Your task to perform on an android device: Turn off the flashlight Image 0: 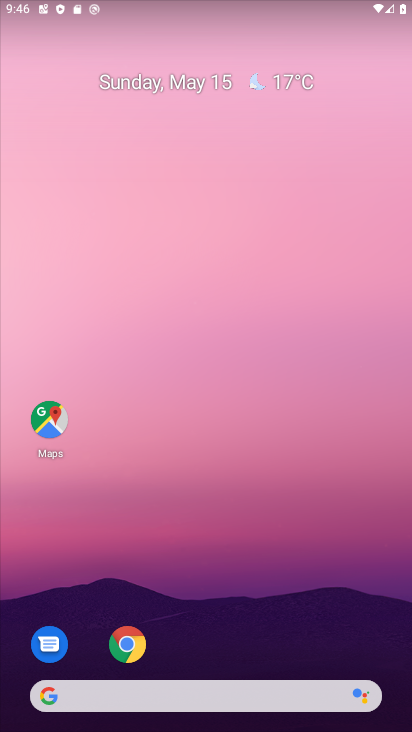
Step 0: drag from (247, 652) to (221, 274)
Your task to perform on an android device: Turn off the flashlight Image 1: 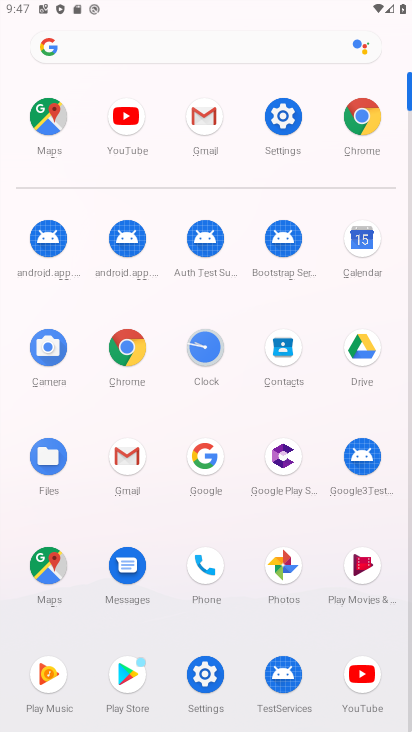
Step 1: click (295, 79)
Your task to perform on an android device: Turn off the flashlight Image 2: 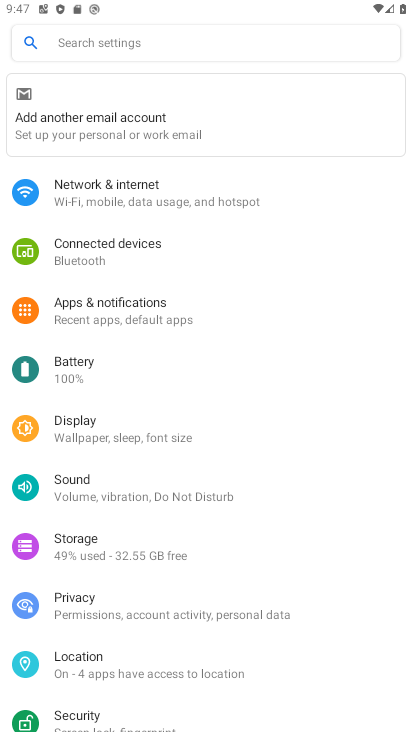
Step 2: click (114, 31)
Your task to perform on an android device: Turn off the flashlight Image 3: 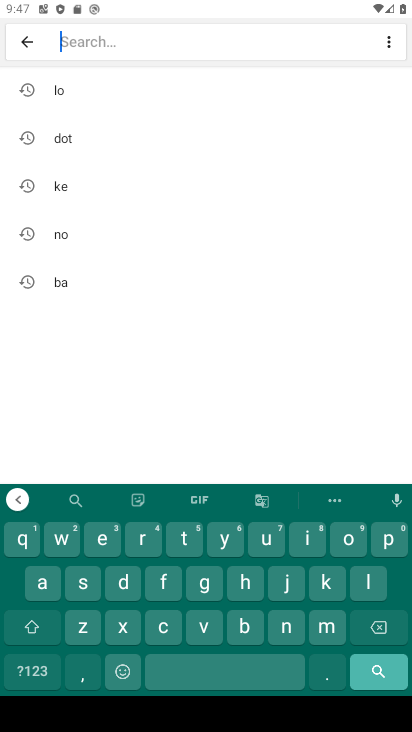
Step 3: click (165, 594)
Your task to perform on an android device: Turn off the flashlight Image 4: 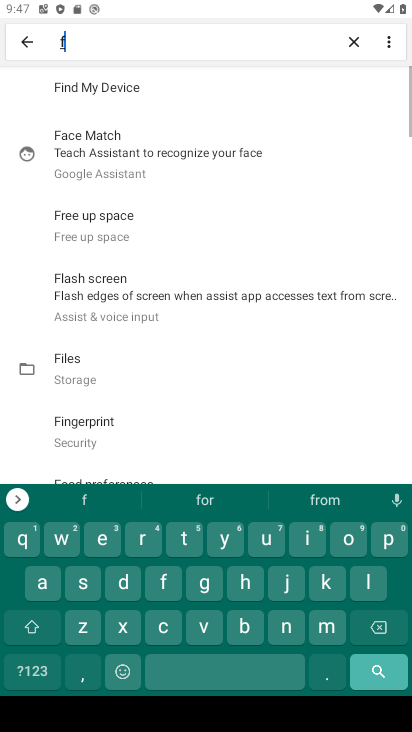
Step 4: click (374, 591)
Your task to perform on an android device: Turn off the flashlight Image 5: 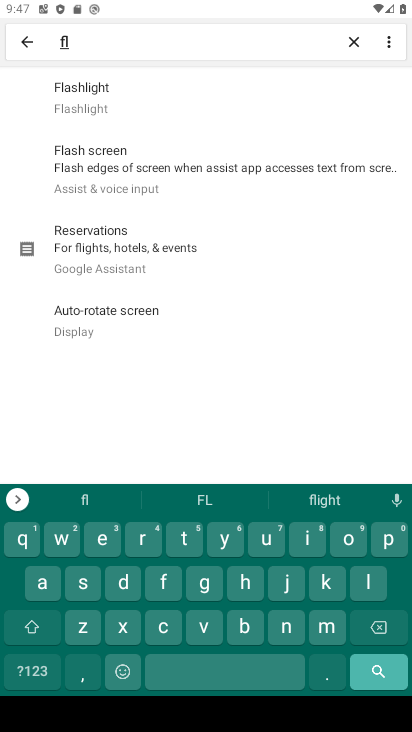
Step 5: click (134, 106)
Your task to perform on an android device: Turn off the flashlight Image 6: 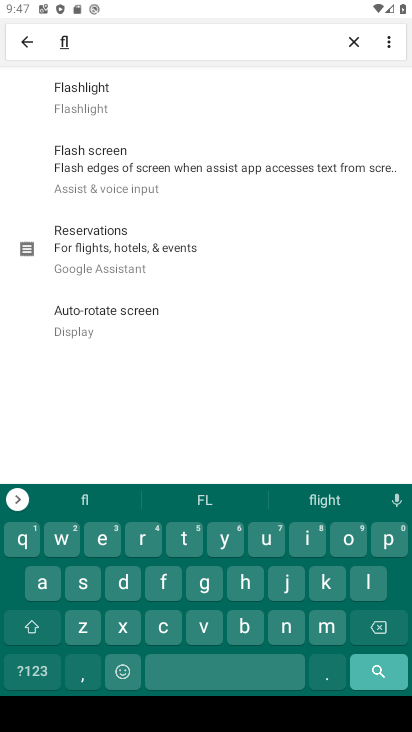
Step 6: task complete